Your task to perform on an android device: Go to Reddit.com Image 0: 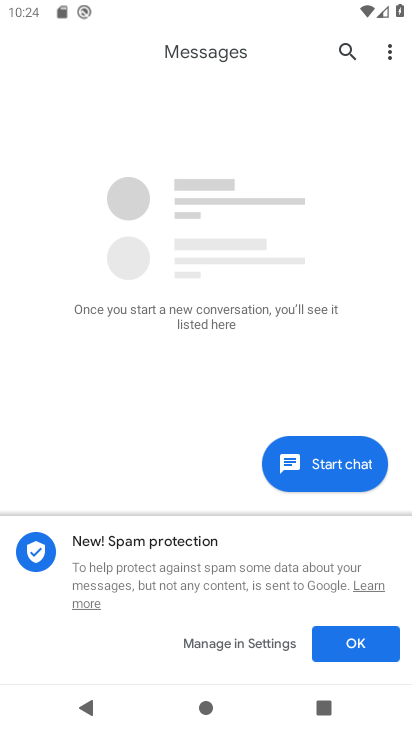
Step 0: press back button
Your task to perform on an android device: Go to Reddit.com Image 1: 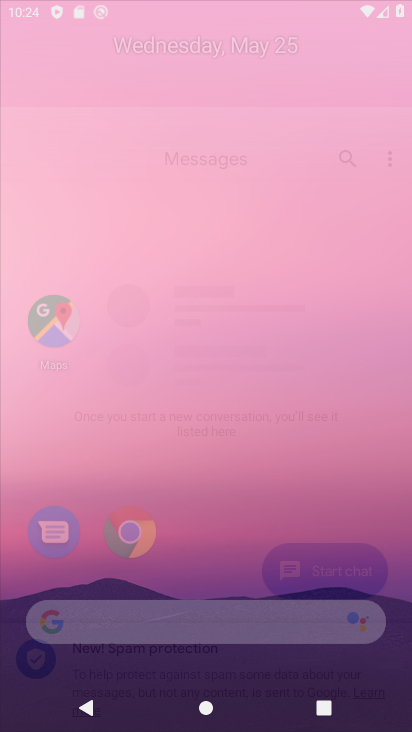
Step 1: press home button
Your task to perform on an android device: Go to Reddit.com Image 2: 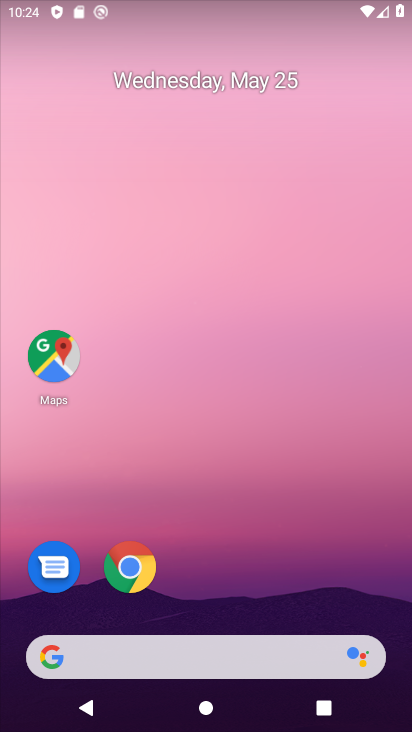
Step 2: click (116, 581)
Your task to perform on an android device: Go to Reddit.com Image 3: 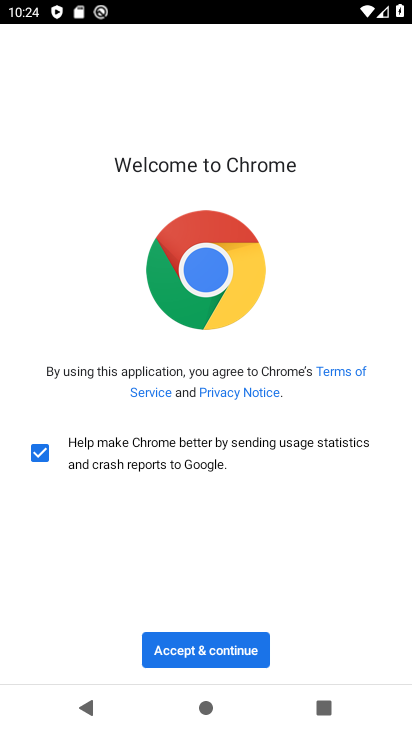
Step 3: click (162, 630)
Your task to perform on an android device: Go to Reddit.com Image 4: 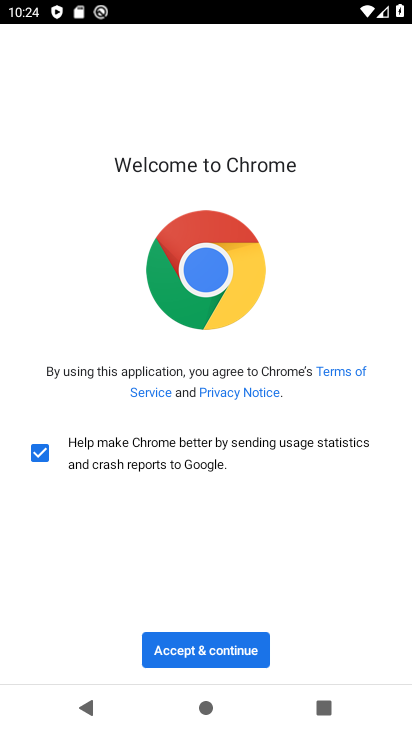
Step 4: click (173, 648)
Your task to perform on an android device: Go to Reddit.com Image 5: 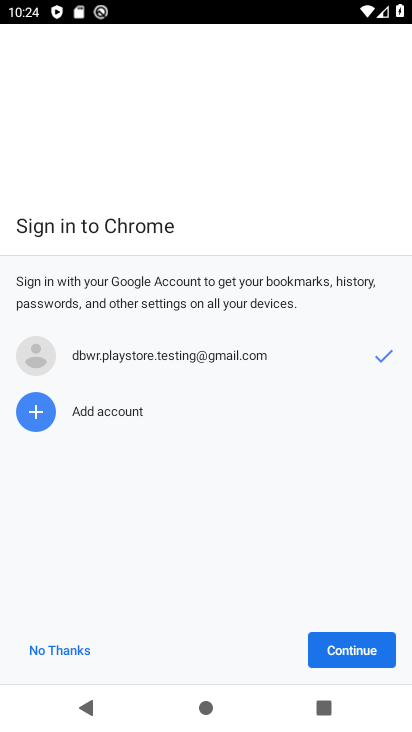
Step 5: click (362, 641)
Your task to perform on an android device: Go to Reddit.com Image 6: 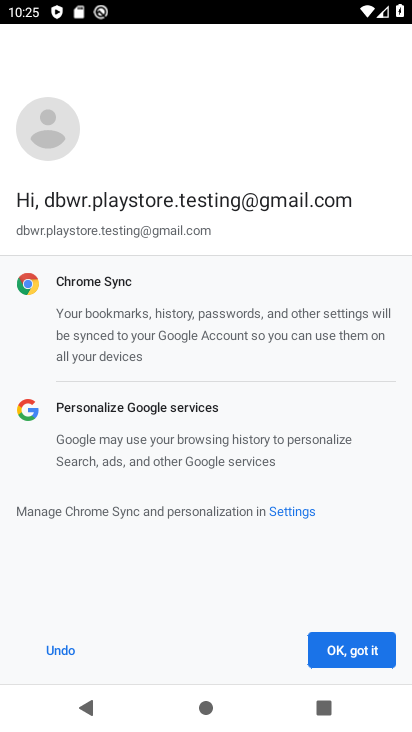
Step 6: click (361, 640)
Your task to perform on an android device: Go to Reddit.com Image 7: 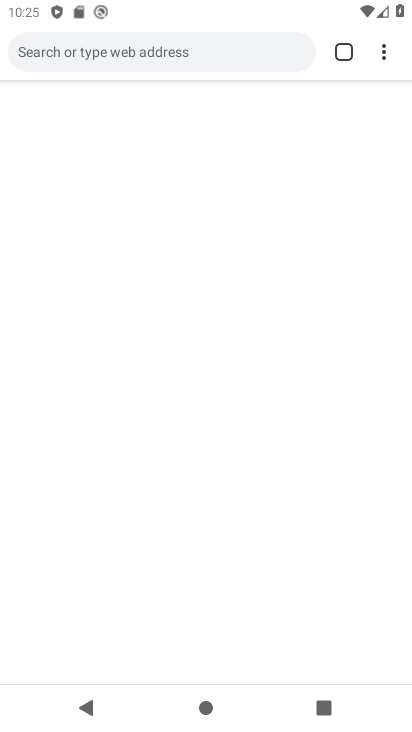
Step 7: click (196, 66)
Your task to perform on an android device: Go to Reddit.com Image 8: 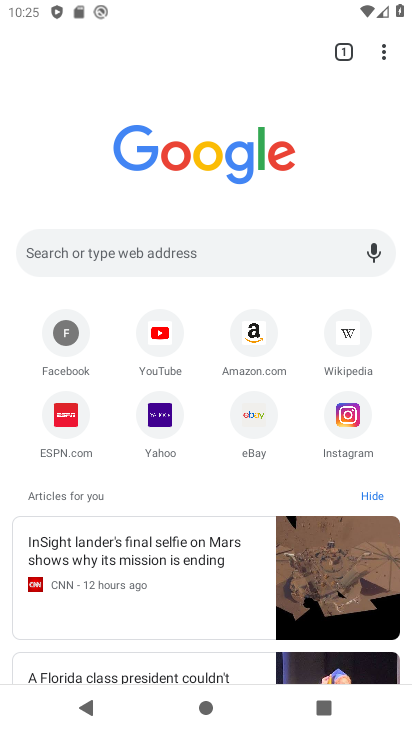
Step 8: click (211, 252)
Your task to perform on an android device: Go to Reddit.com Image 9: 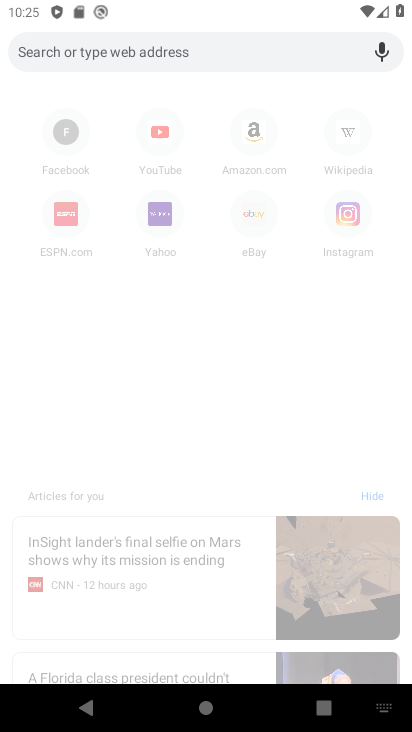
Step 9: type "reddit"
Your task to perform on an android device: Go to Reddit.com Image 10: 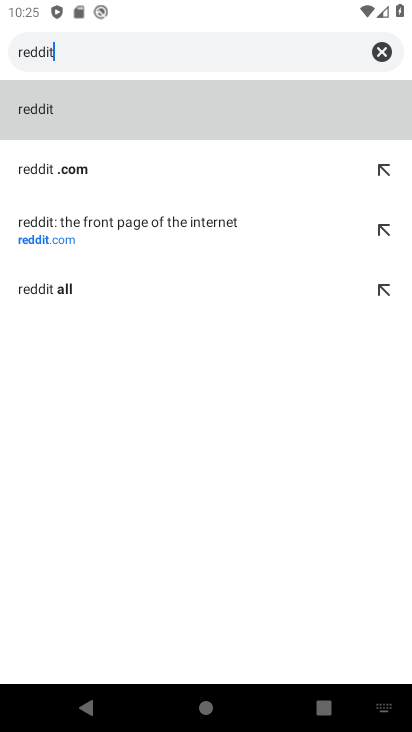
Step 10: click (64, 214)
Your task to perform on an android device: Go to Reddit.com Image 11: 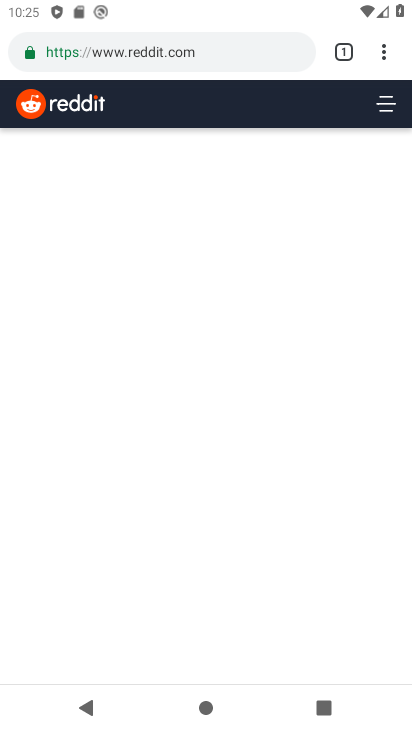
Step 11: task complete